Your task to perform on an android device: see sites visited before in the chrome app Image 0: 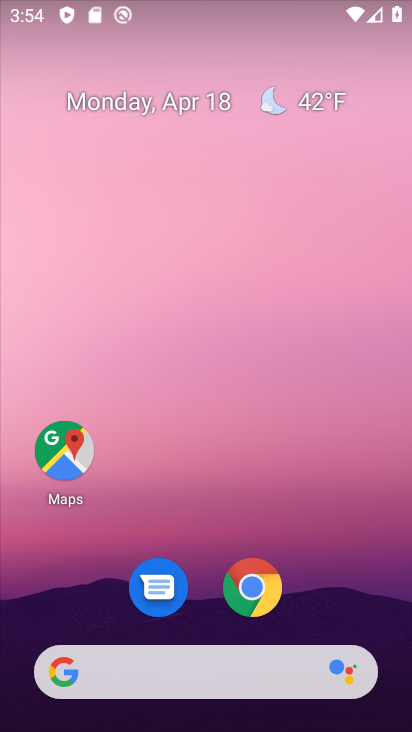
Step 0: click (255, 598)
Your task to perform on an android device: see sites visited before in the chrome app Image 1: 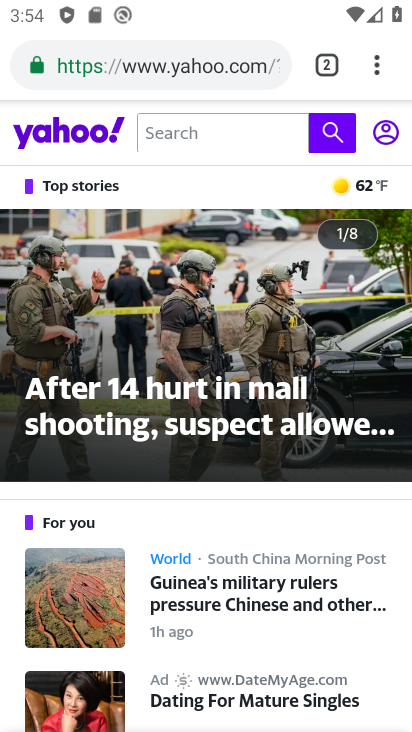
Step 1: click (377, 61)
Your task to perform on an android device: see sites visited before in the chrome app Image 2: 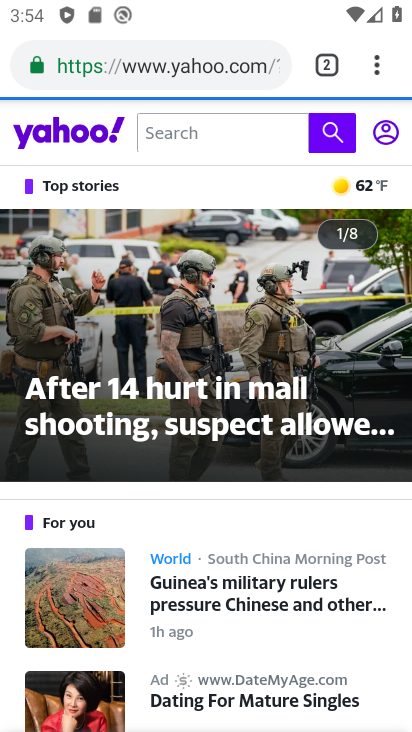
Step 2: click (380, 66)
Your task to perform on an android device: see sites visited before in the chrome app Image 3: 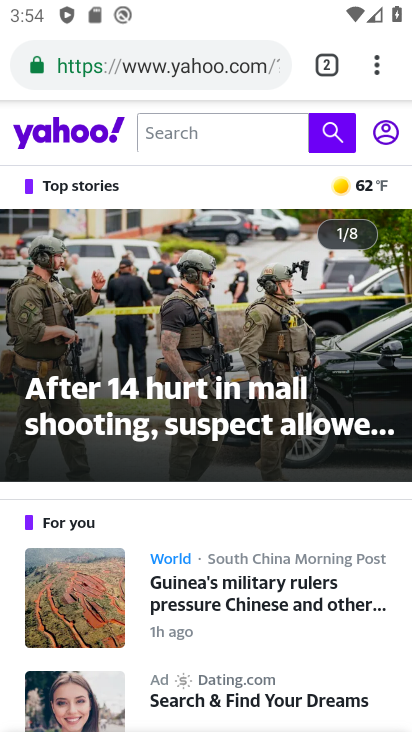
Step 3: click (381, 67)
Your task to perform on an android device: see sites visited before in the chrome app Image 4: 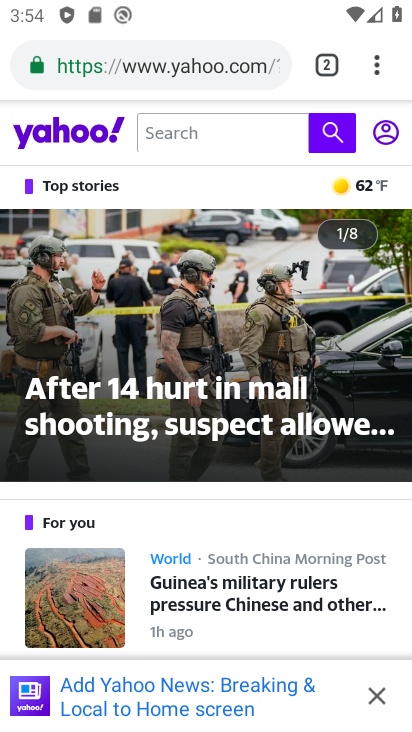
Step 4: click (378, 58)
Your task to perform on an android device: see sites visited before in the chrome app Image 5: 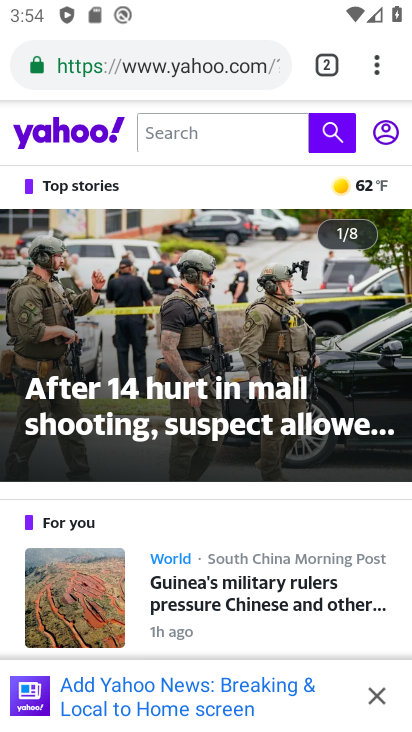
Step 5: click (378, 63)
Your task to perform on an android device: see sites visited before in the chrome app Image 6: 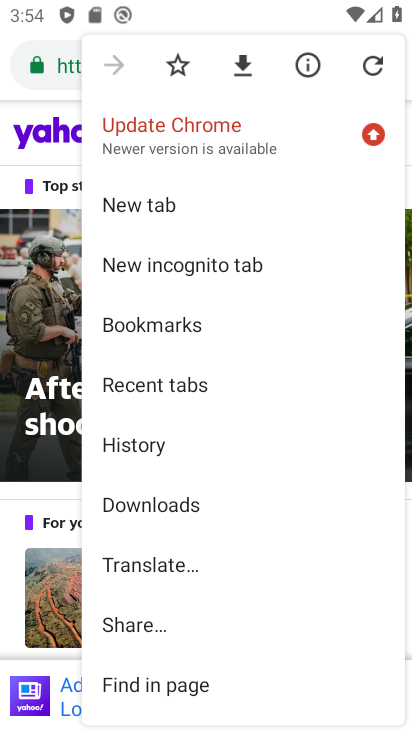
Step 6: click (188, 442)
Your task to perform on an android device: see sites visited before in the chrome app Image 7: 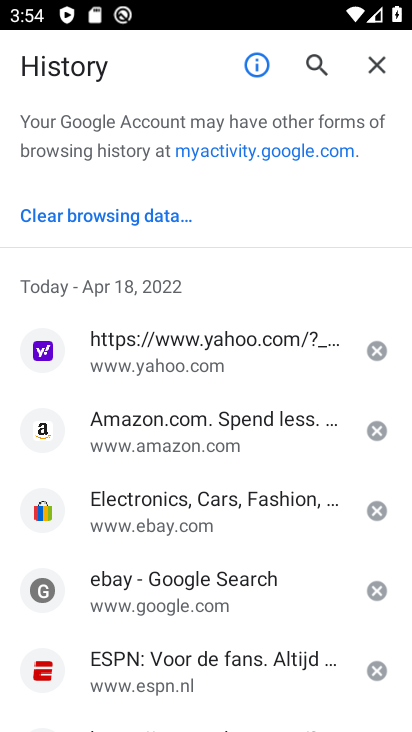
Step 7: task complete